Your task to perform on an android device: Go to Google Image 0: 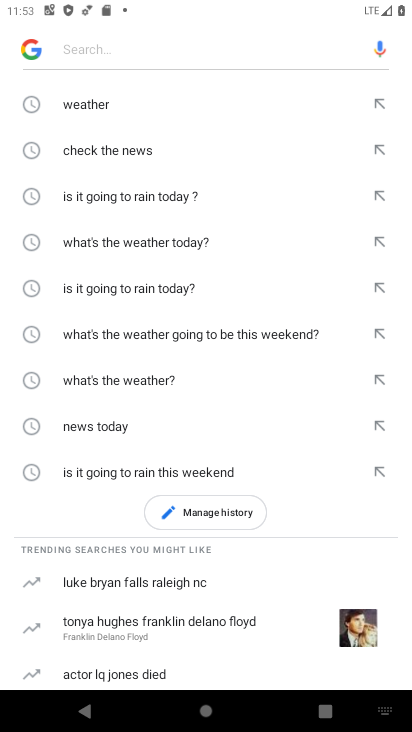
Step 0: press home button
Your task to perform on an android device: Go to Google Image 1: 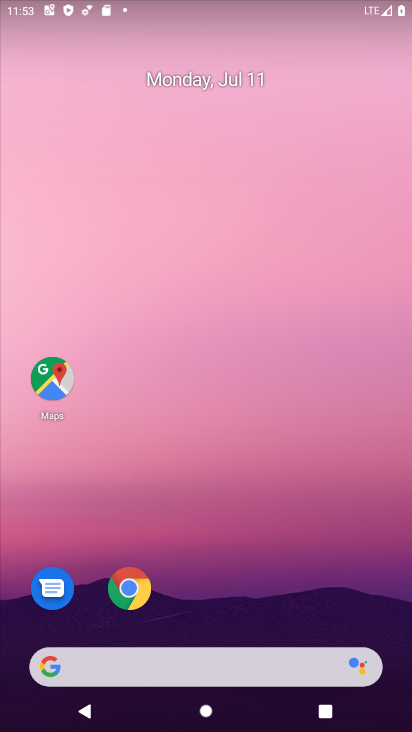
Step 1: drag from (259, 529) to (215, 47)
Your task to perform on an android device: Go to Google Image 2: 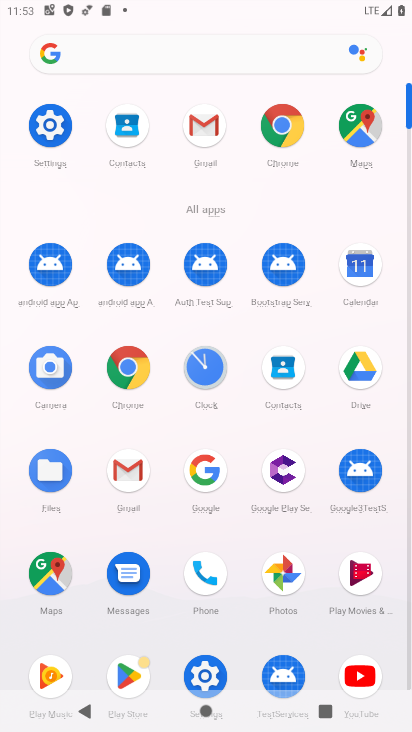
Step 2: click (202, 470)
Your task to perform on an android device: Go to Google Image 3: 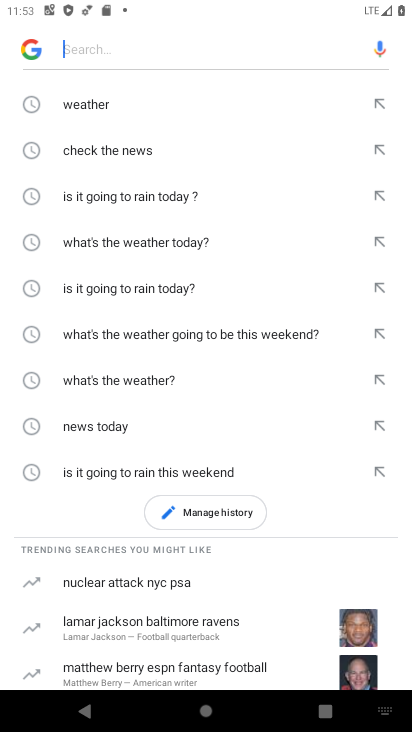
Step 3: task complete